Your task to perform on an android device: toggle translation in the chrome app Image 0: 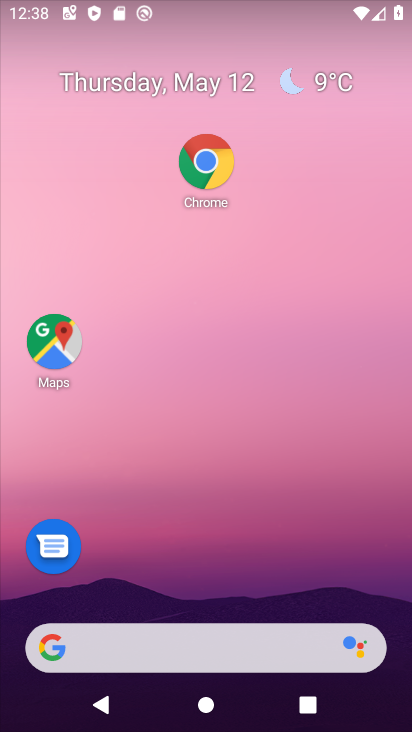
Step 0: drag from (42, 341) to (235, 537)
Your task to perform on an android device: toggle translation in the chrome app Image 1: 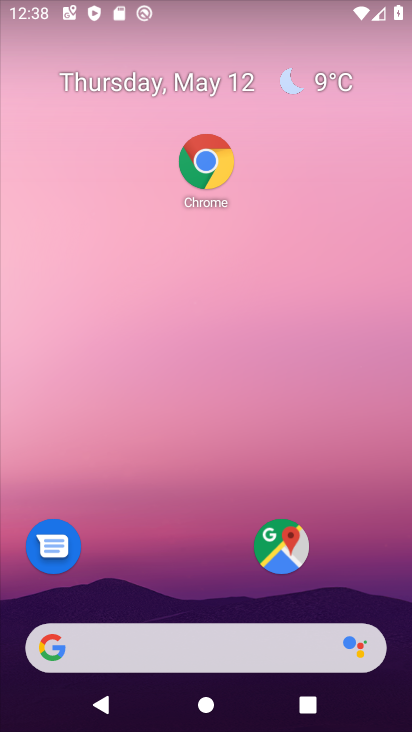
Step 1: click (207, 535)
Your task to perform on an android device: toggle translation in the chrome app Image 2: 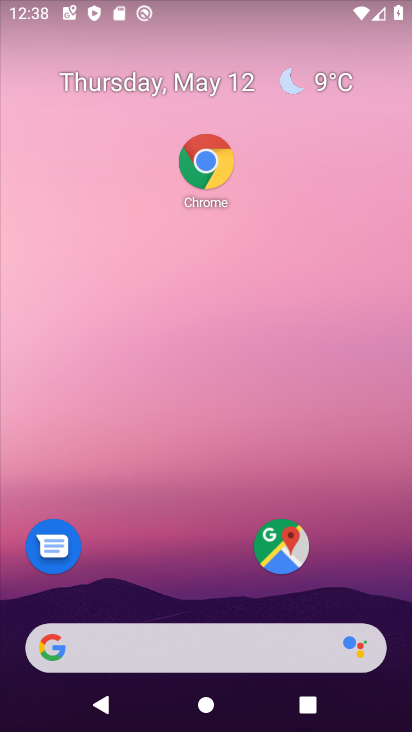
Step 2: click (194, 155)
Your task to perform on an android device: toggle translation in the chrome app Image 3: 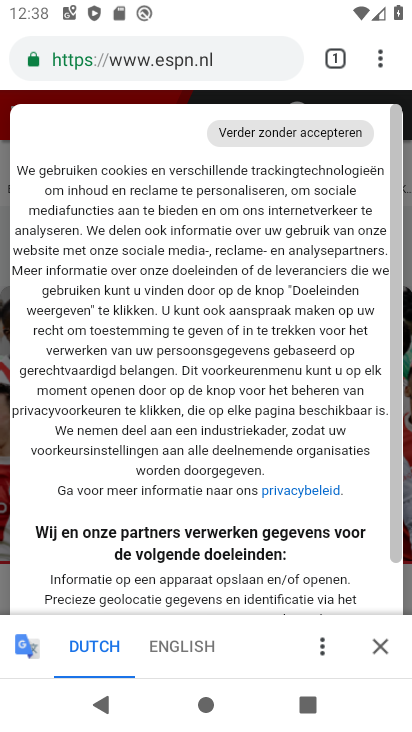
Step 3: drag from (377, 58) to (249, 576)
Your task to perform on an android device: toggle translation in the chrome app Image 4: 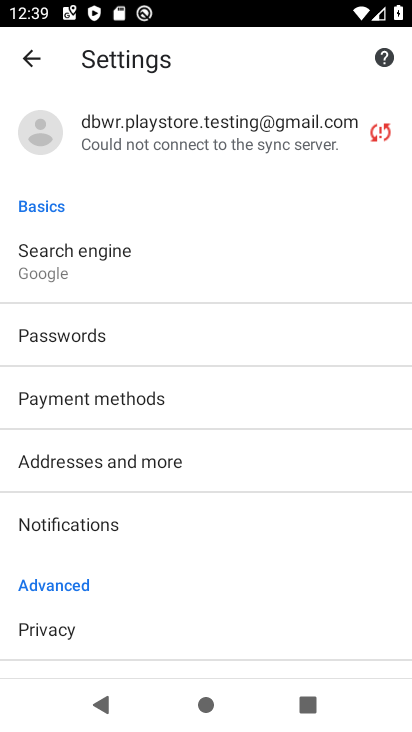
Step 4: drag from (169, 591) to (193, 237)
Your task to perform on an android device: toggle translation in the chrome app Image 5: 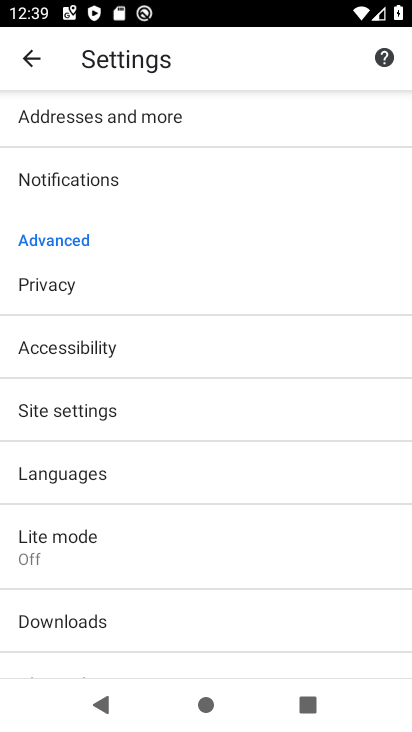
Step 5: click (96, 475)
Your task to perform on an android device: toggle translation in the chrome app Image 6: 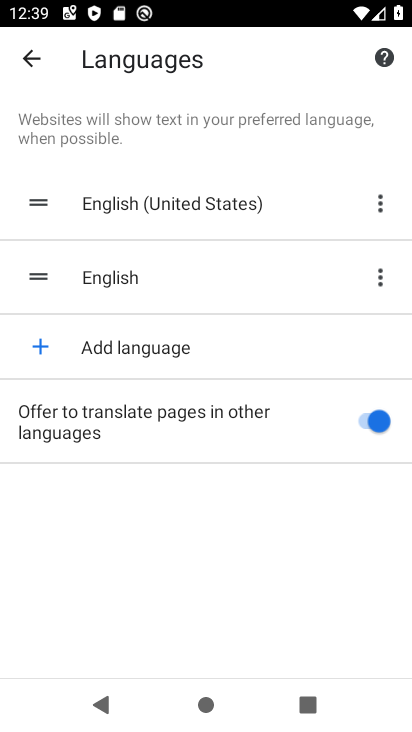
Step 6: click (373, 403)
Your task to perform on an android device: toggle translation in the chrome app Image 7: 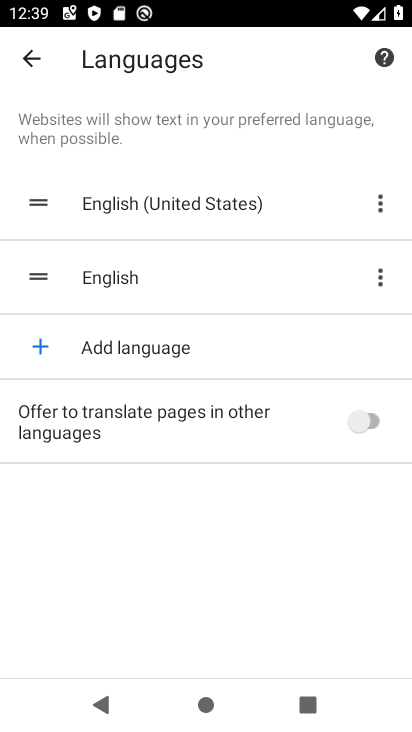
Step 7: task complete